Your task to perform on an android device: Search for hotels in Austin Image 0: 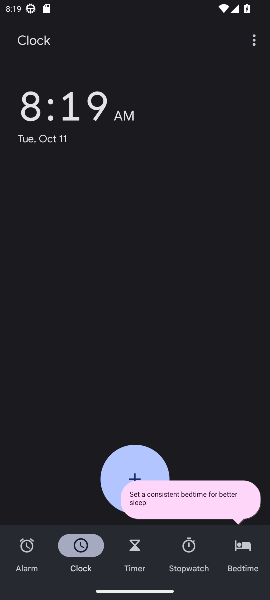
Step 0: press home button
Your task to perform on an android device: Search for hotels in Austin Image 1: 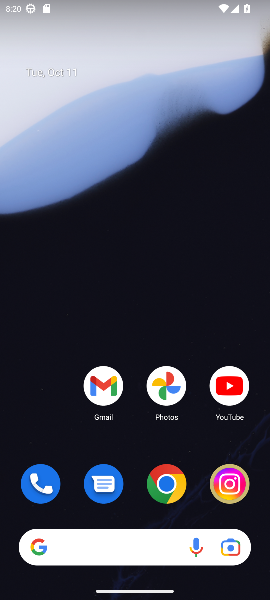
Step 1: click (168, 488)
Your task to perform on an android device: Search for hotels in Austin Image 2: 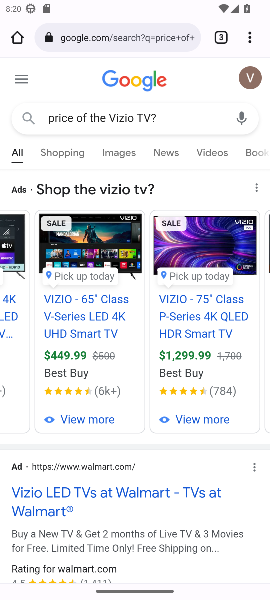
Step 2: click (150, 38)
Your task to perform on an android device: Search for hotels in Austin Image 3: 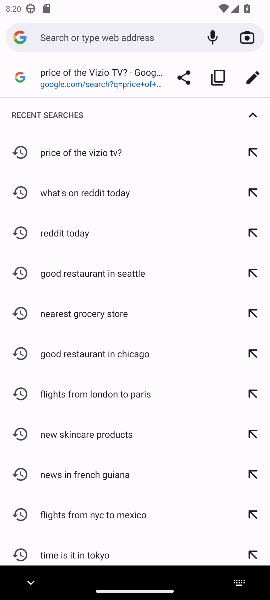
Step 3: type "hotel in Austin"
Your task to perform on an android device: Search for hotels in Austin Image 4: 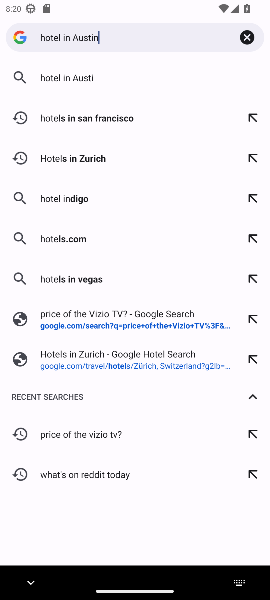
Step 4: type ""
Your task to perform on an android device: Search for hotels in Austin Image 5: 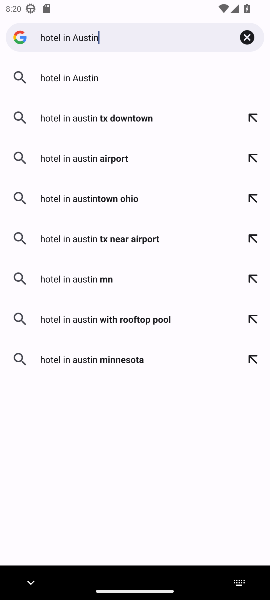
Step 5: click (82, 77)
Your task to perform on an android device: Search for hotels in Austin Image 6: 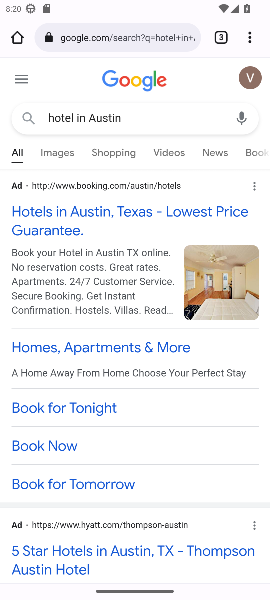
Step 6: drag from (130, 480) to (168, 352)
Your task to perform on an android device: Search for hotels in Austin Image 7: 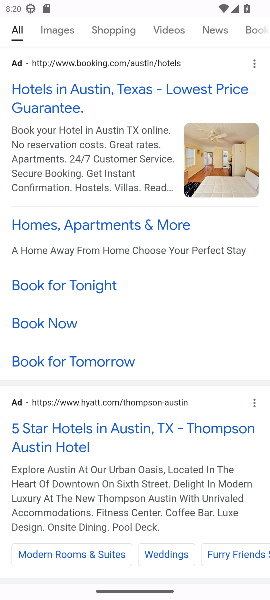
Step 7: drag from (140, 467) to (185, 270)
Your task to perform on an android device: Search for hotels in Austin Image 8: 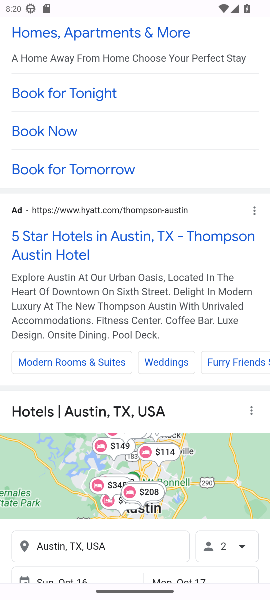
Step 8: drag from (148, 491) to (162, 265)
Your task to perform on an android device: Search for hotels in Austin Image 9: 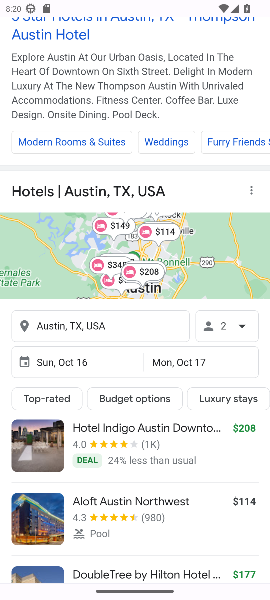
Step 9: drag from (134, 476) to (189, 306)
Your task to perform on an android device: Search for hotels in Austin Image 10: 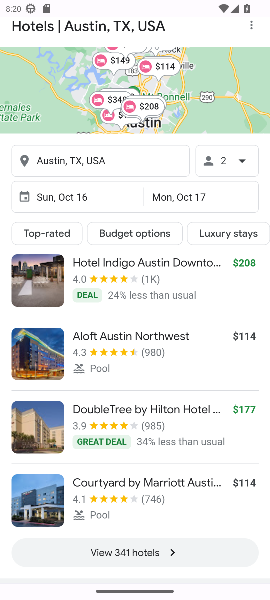
Step 10: click (155, 550)
Your task to perform on an android device: Search for hotels in Austin Image 11: 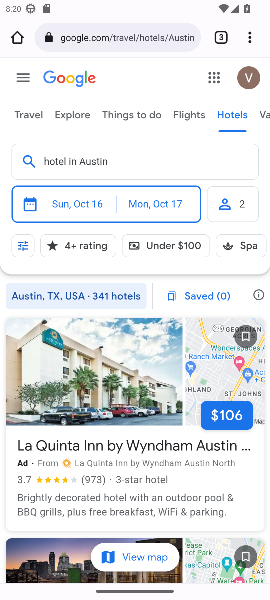
Step 11: task complete